Your task to perform on an android device: toggle data saver in the chrome app Image 0: 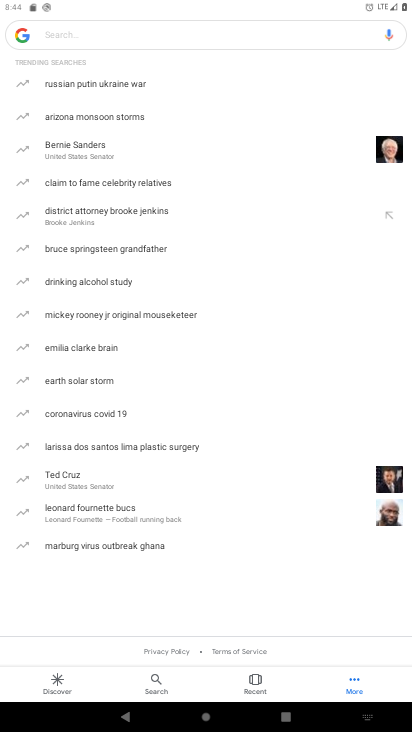
Step 0: press home button
Your task to perform on an android device: toggle data saver in the chrome app Image 1: 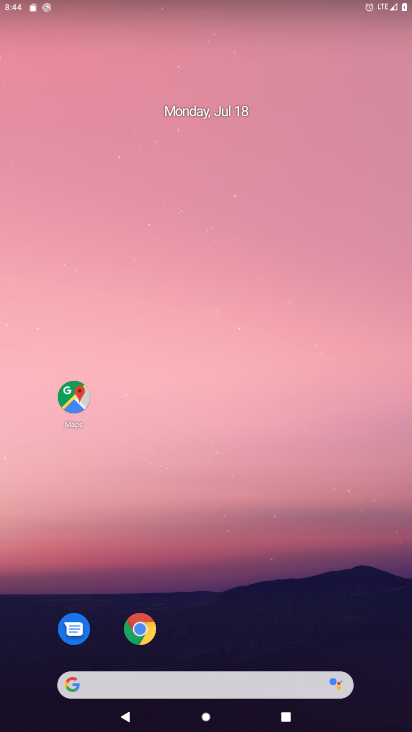
Step 1: click (139, 621)
Your task to perform on an android device: toggle data saver in the chrome app Image 2: 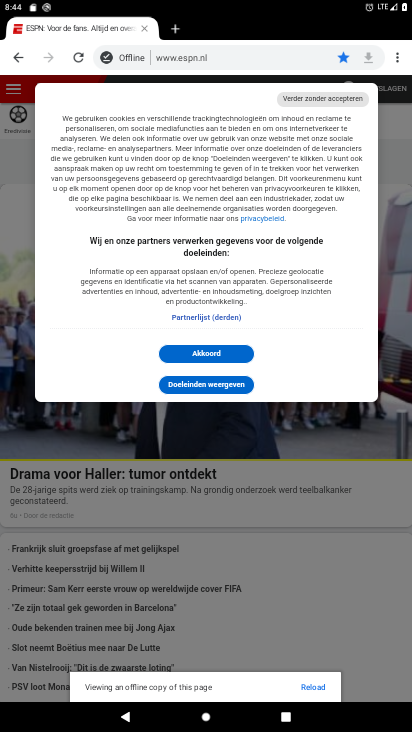
Step 2: click (390, 55)
Your task to perform on an android device: toggle data saver in the chrome app Image 3: 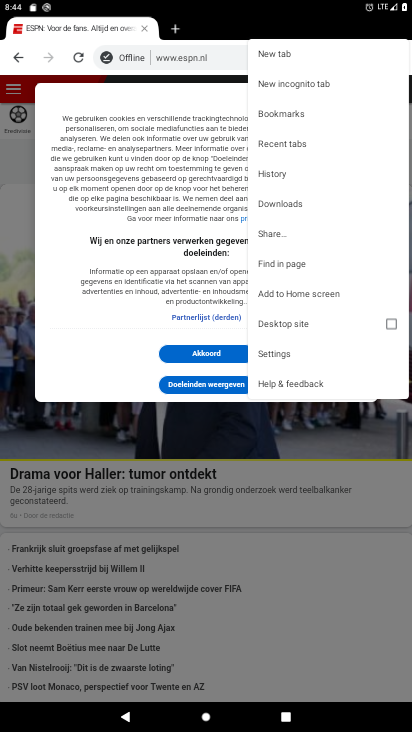
Step 3: click (280, 357)
Your task to perform on an android device: toggle data saver in the chrome app Image 4: 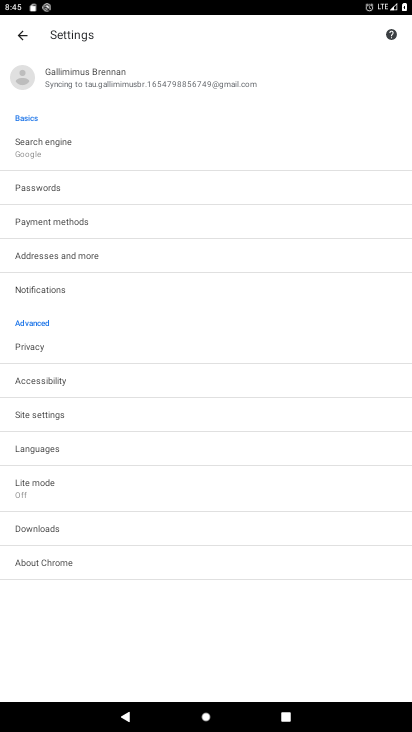
Step 4: click (40, 485)
Your task to perform on an android device: toggle data saver in the chrome app Image 5: 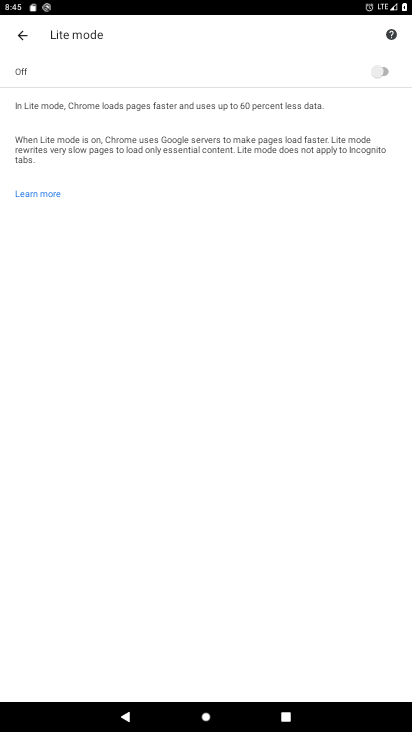
Step 5: click (322, 75)
Your task to perform on an android device: toggle data saver in the chrome app Image 6: 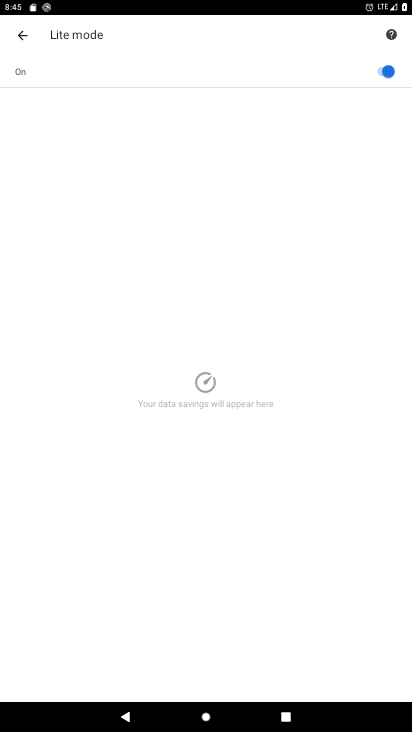
Step 6: task complete